Your task to perform on an android device: Open accessibility settings Image 0: 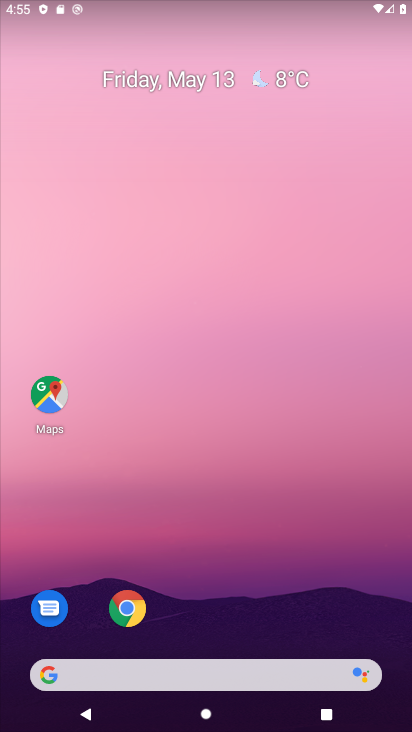
Step 0: drag from (241, 420) to (218, 51)
Your task to perform on an android device: Open accessibility settings Image 1: 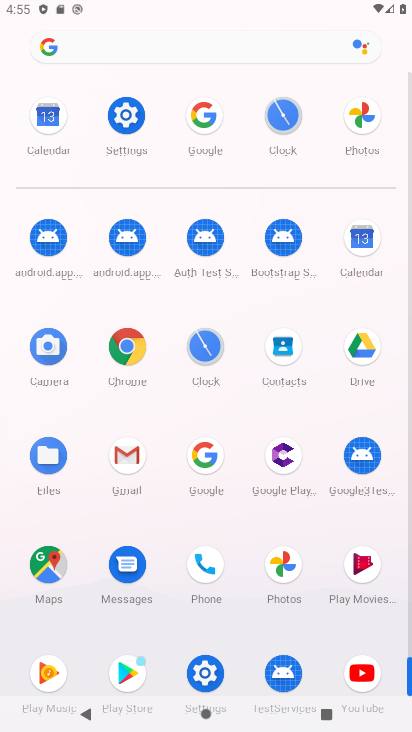
Step 1: click (202, 675)
Your task to perform on an android device: Open accessibility settings Image 2: 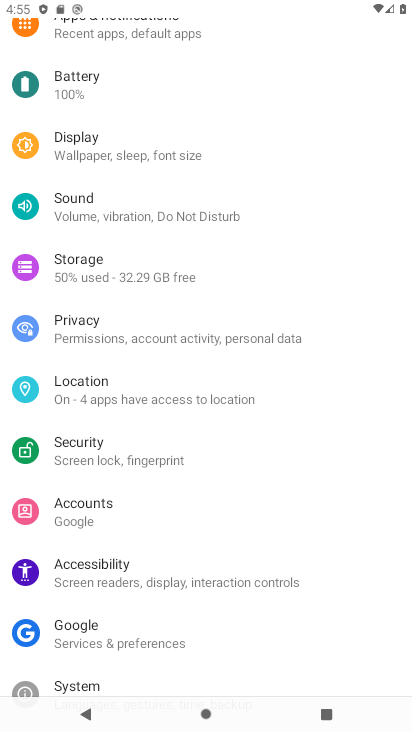
Step 2: click (95, 562)
Your task to perform on an android device: Open accessibility settings Image 3: 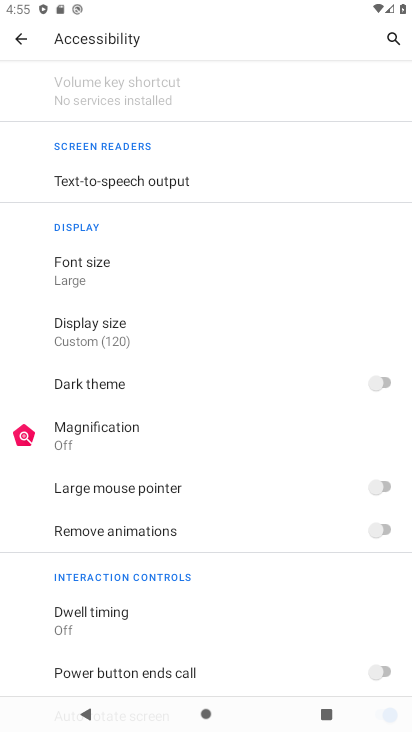
Step 3: task complete